Your task to perform on an android device: Open wifi settings Image 0: 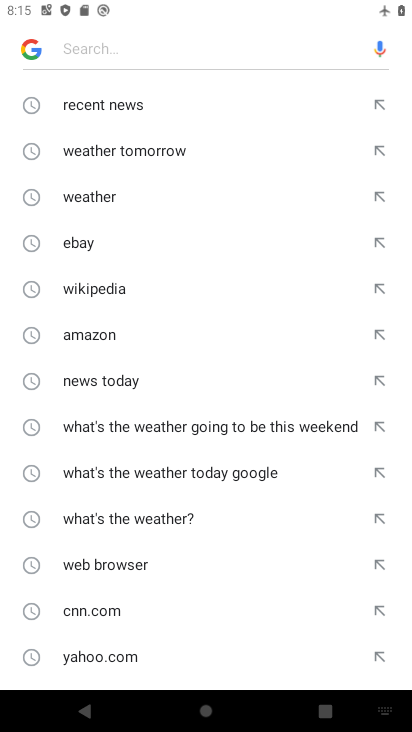
Step 0: press home button
Your task to perform on an android device: Open wifi settings Image 1: 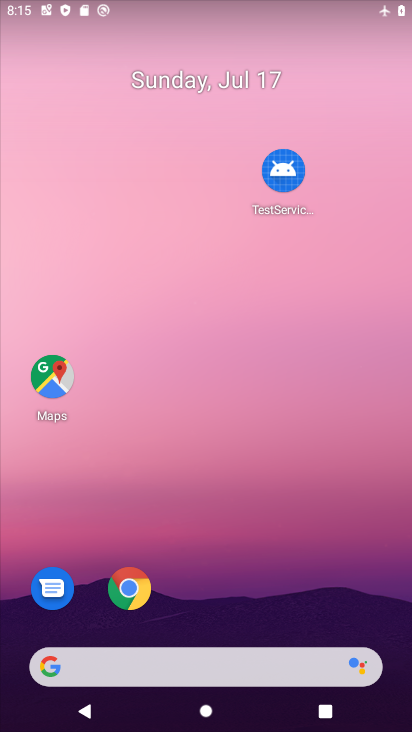
Step 1: drag from (232, 667) to (232, 206)
Your task to perform on an android device: Open wifi settings Image 2: 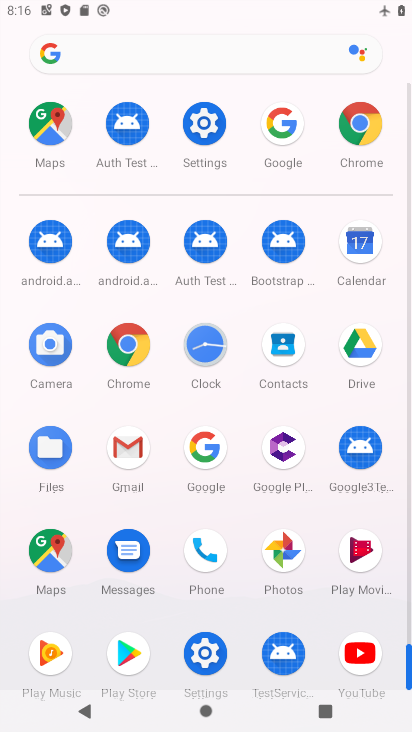
Step 2: click (200, 146)
Your task to perform on an android device: Open wifi settings Image 3: 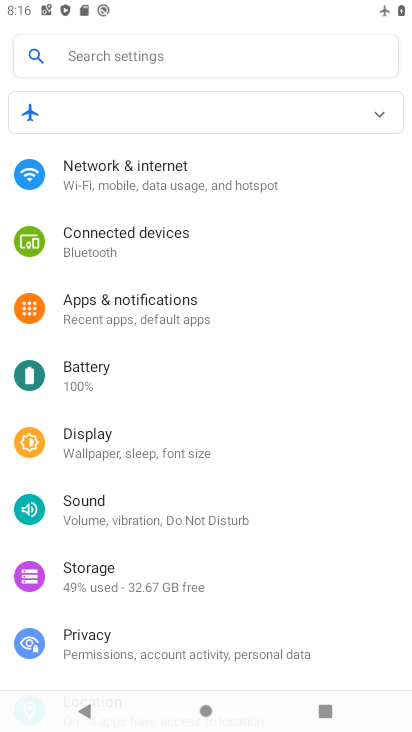
Step 3: click (174, 190)
Your task to perform on an android device: Open wifi settings Image 4: 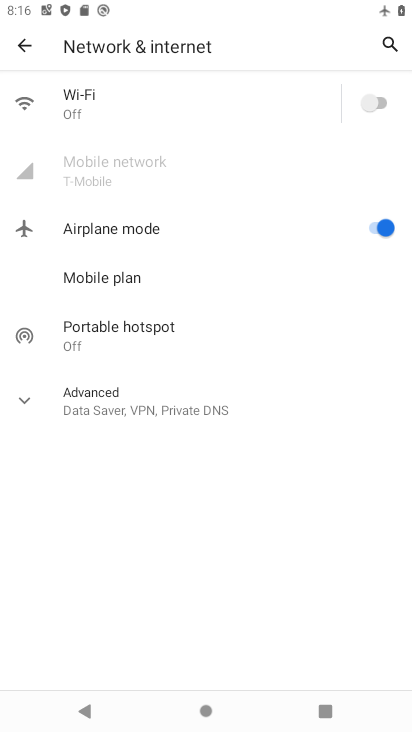
Step 4: click (143, 112)
Your task to perform on an android device: Open wifi settings Image 5: 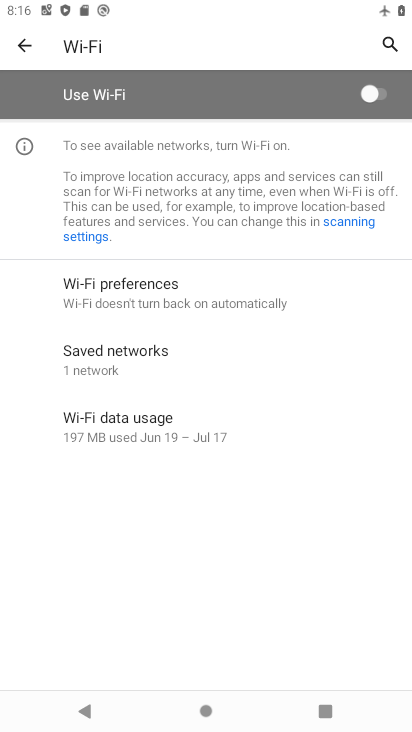
Step 5: task complete